Your task to perform on an android device: Go to settings Image 0: 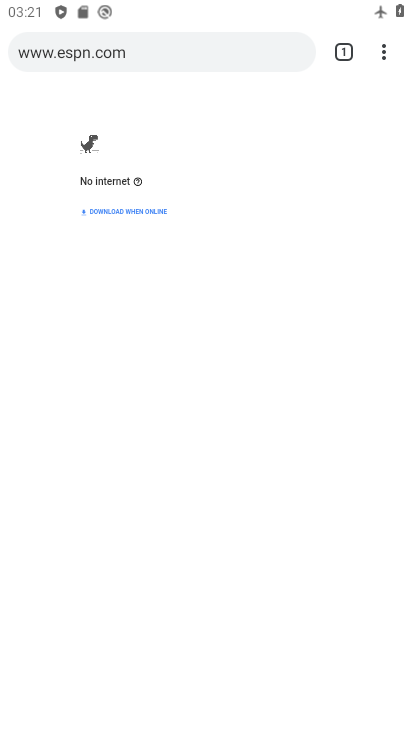
Step 0: press home button
Your task to perform on an android device: Go to settings Image 1: 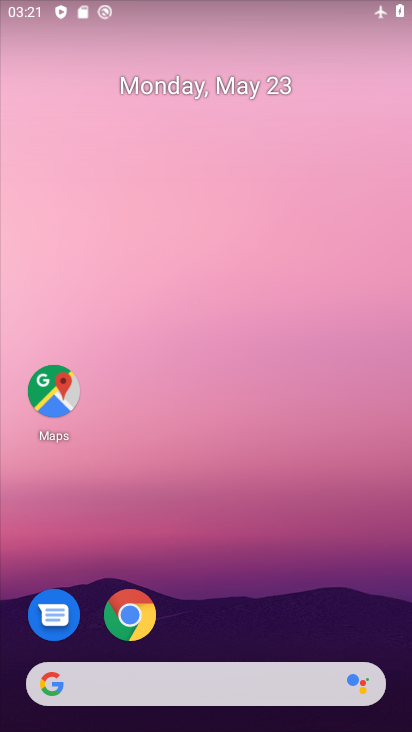
Step 1: drag from (266, 599) to (270, 241)
Your task to perform on an android device: Go to settings Image 2: 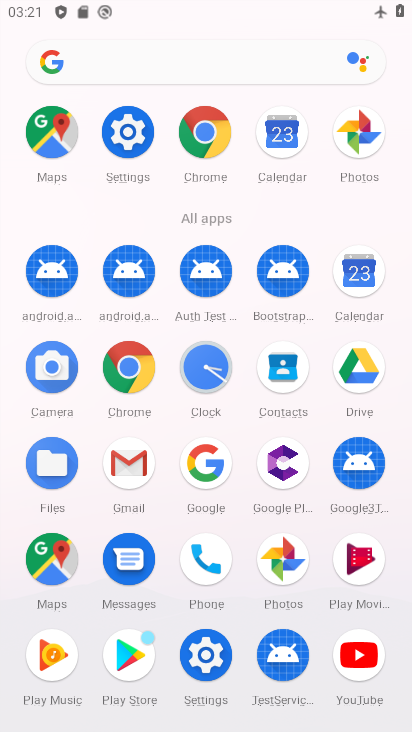
Step 2: click (132, 134)
Your task to perform on an android device: Go to settings Image 3: 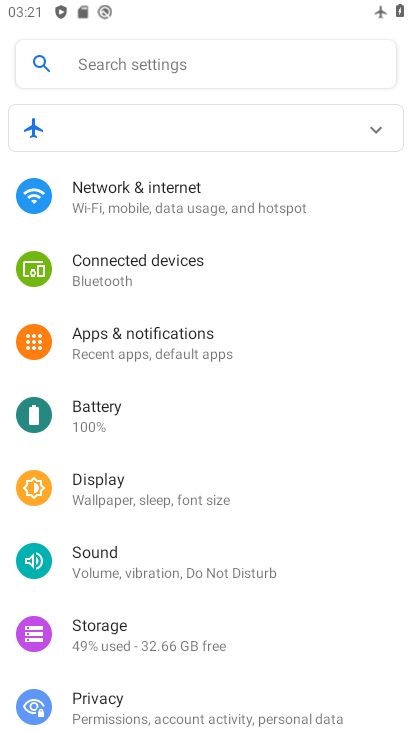
Step 3: task complete